Your task to perform on an android device: turn notification dots off Image 0: 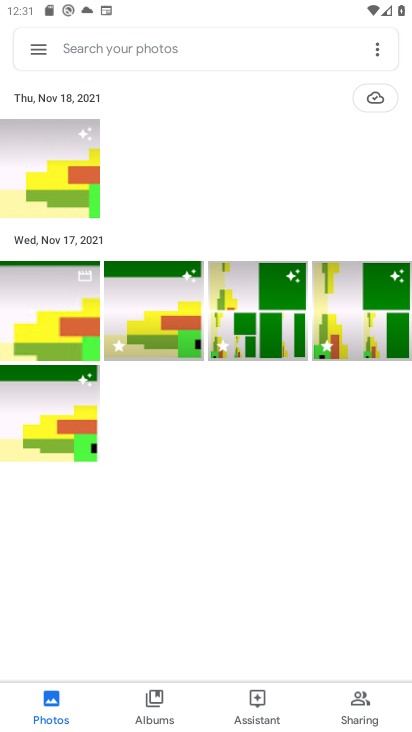
Step 0: press home button
Your task to perform on an android device: turn notification dots off Image 1: 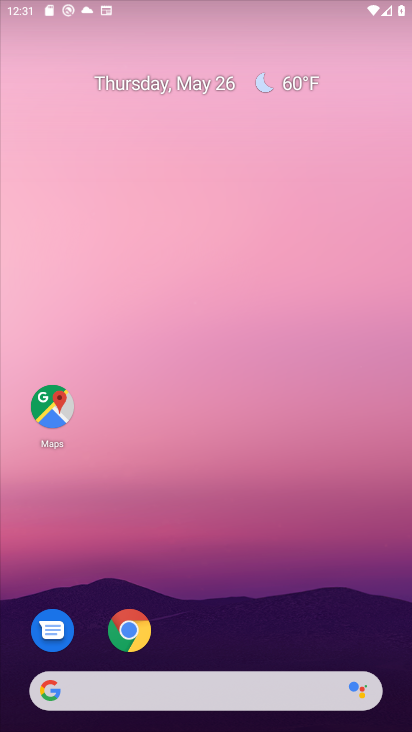
Step 1: drag from (308, 611) to (313, 8)
Your task to perform on an android device: turn notification dots off Image 2: 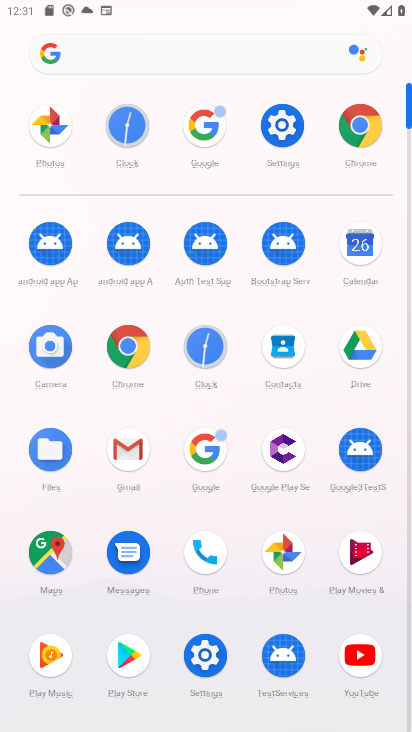
Step 2: click (260, 179)
Your task to perform on an android device: turn notification dots off Image 3: 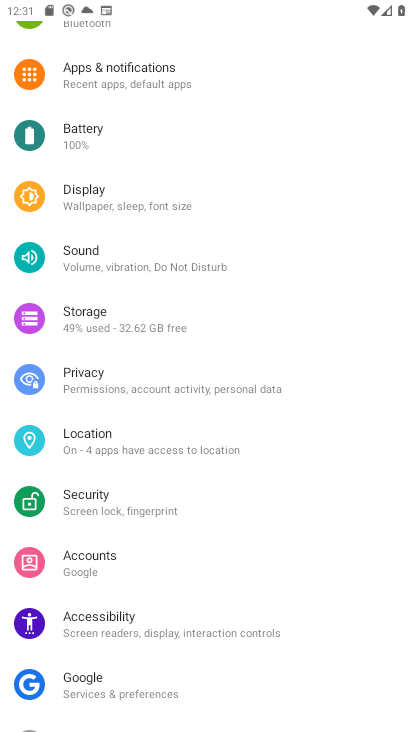
Step 3: drag from (147, 175) to (136, 401)
Your task to perform on an android device: turn notification dots off Image 4: 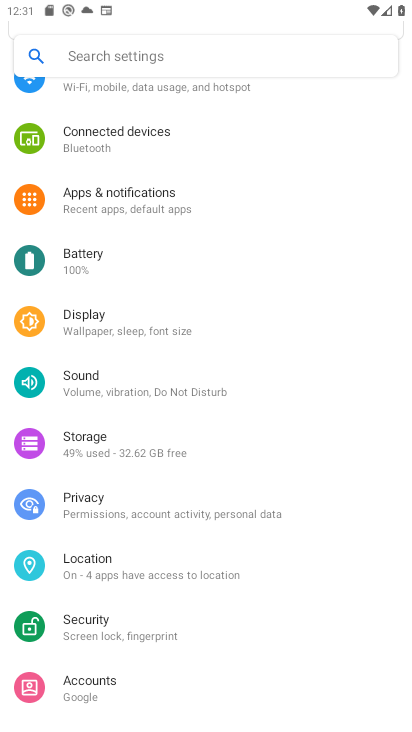
Step 4: click (140, 206)
Your task to perform on an android device: turn notification dots off Image 5: 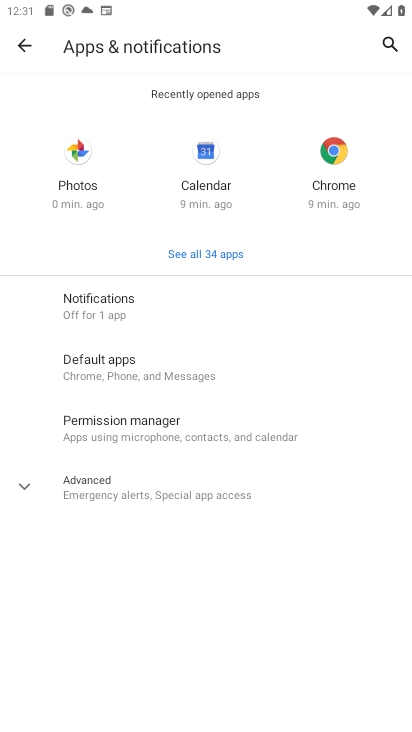
Step 5: click (89, 308)
Your task to perform on an android device: turn notification dots off Image 6: 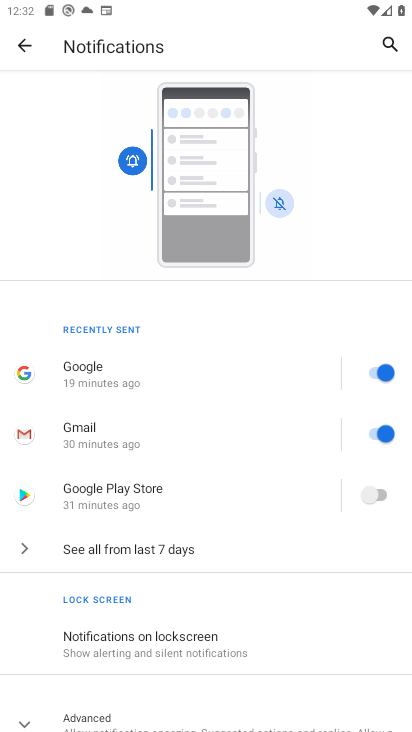
Step 6: drag from (141, 576) to (219, 213)
Your task to perform on an android device: turn notification dots off Image 7: 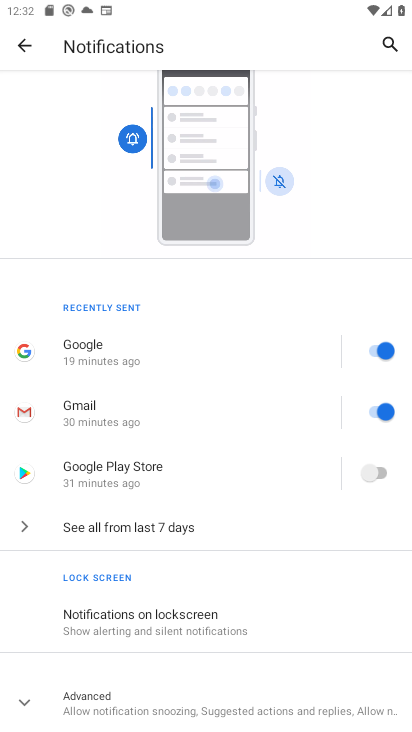
Step 7: drag from (200, 593) to (206, 262)
Your task to perform on an android device: turn notification dots off Image 8: 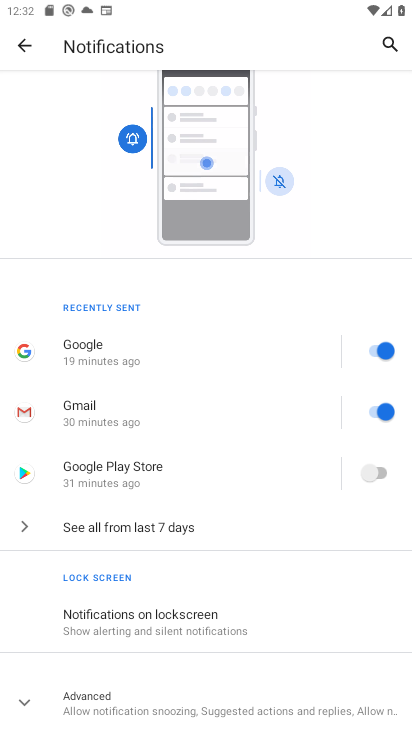
Step 8: drag from (180, 590) to (194, 183)
Your task to perform on an android device: turn notification dots off Image 9: 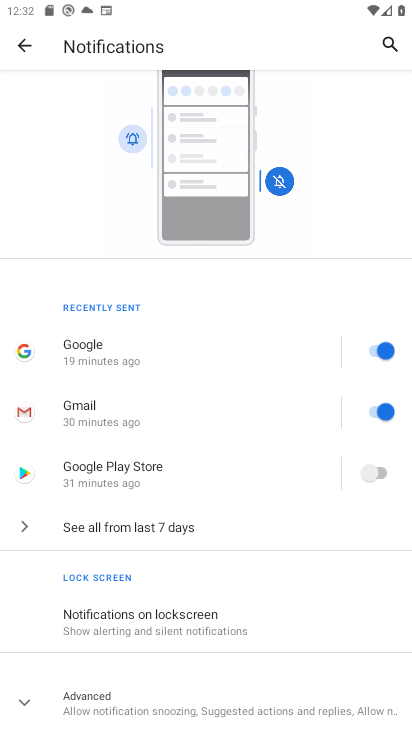
Step 9: drag from (196, 672) to (206, 392)
Your task to perform on an android device: turn notification dots off Image 10: 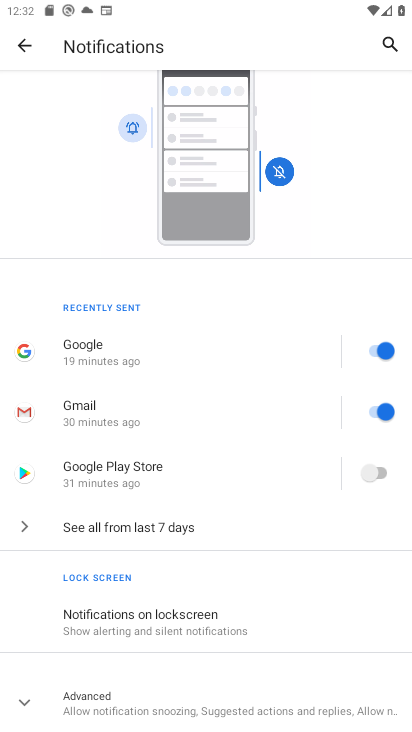
Step 10: click (184, 702)
Your task to perform on an android device: turn notification dots off Image 11: 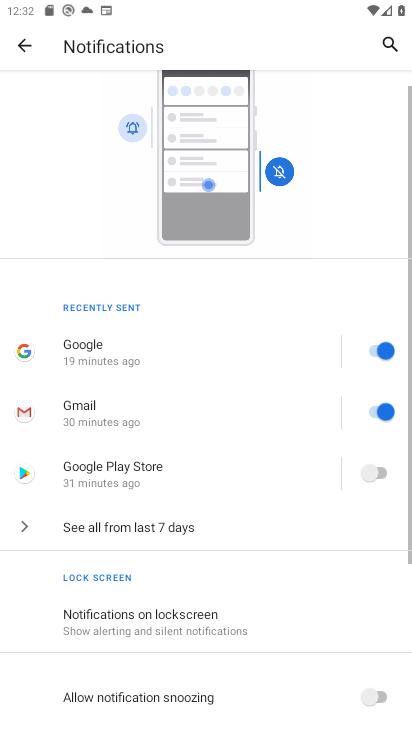
Step 11: drag from (177, 658) to (208, 271)
Your task to perform on an android device: turn notification dots off Image 12: 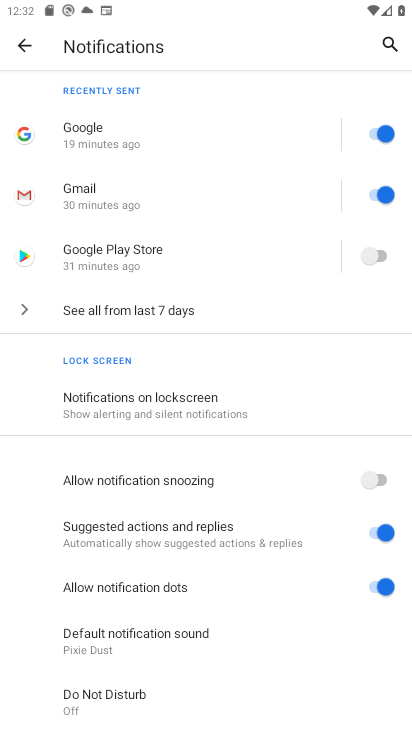
Step 12: click (380, 587)
Your task to perform on an android device: turn notification dots off Image 13: 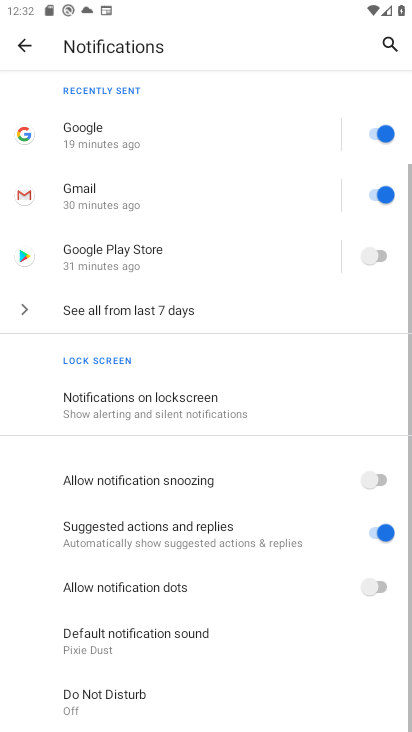
Step 13: task complete